Your task to perform on an android device: turn off priority inbox in the gmail app Image 0: 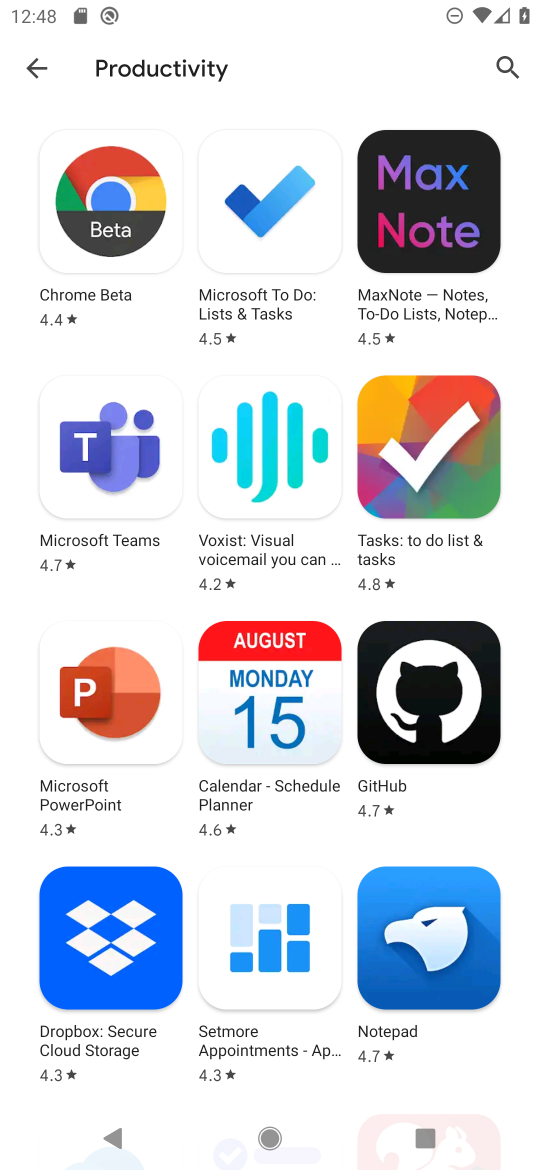
Step 0: press home button
Your task to perform on an android device: turn off priority inbox in the gmail app Image 1: 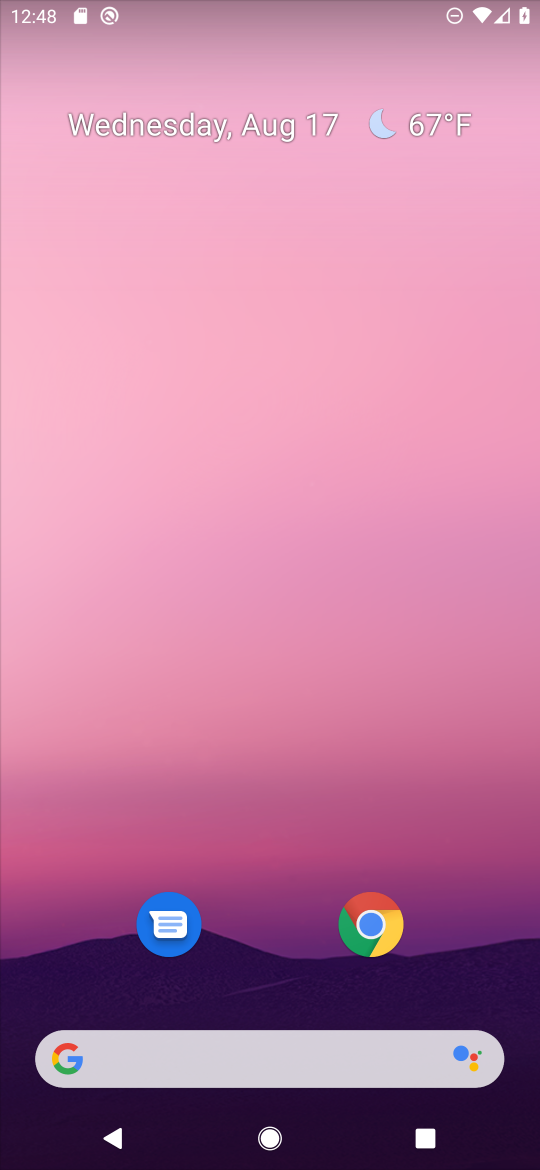
Step 1: drag from (261, 991) to (305, 77)
Your task to perform on an android device: turn off priority inbox in the gmail app Image 2: 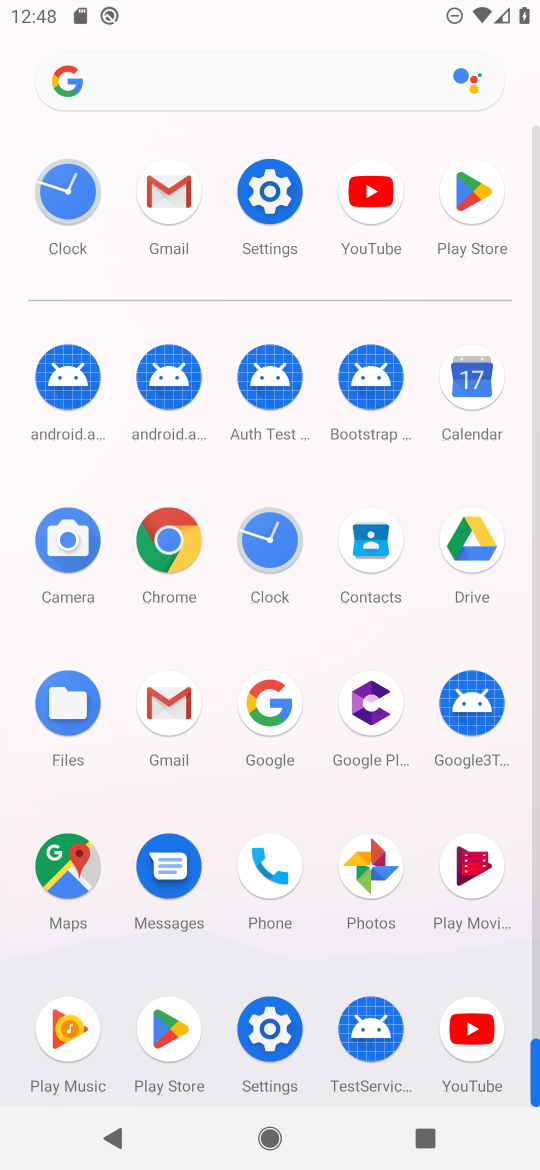
Step 2: click (198, 176)
Your task to perform on an android device: turn off priority inbox in the gmail app Image 3: 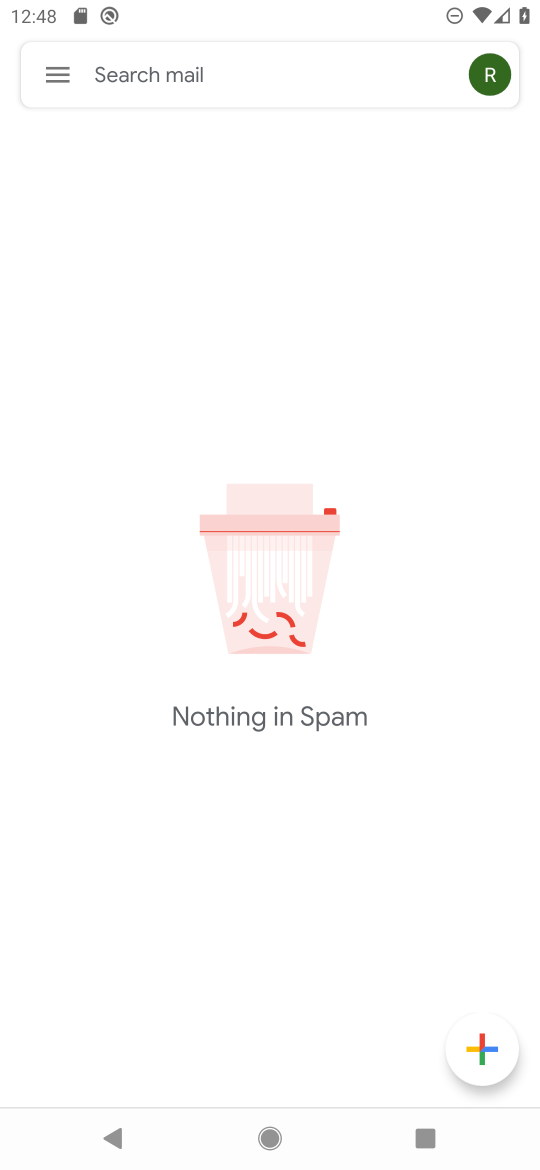
Step 3: click (54, 83)
Your task to perform on an android device: turn off priority inbox in the gmail app Image 4: 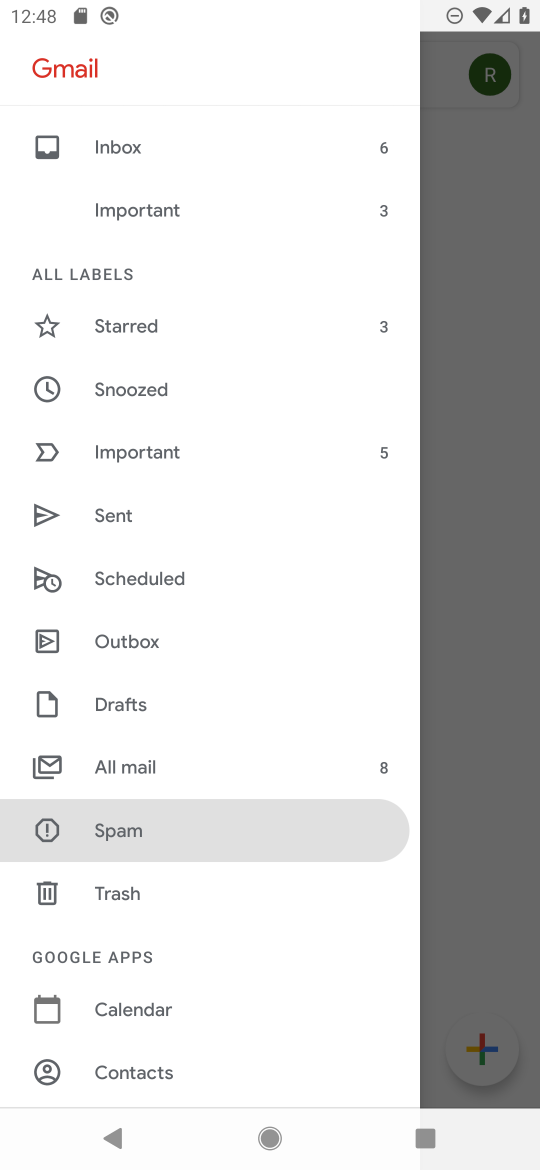
Step 4: drag from (252, 1020) to (197, 298)
Your task to perform on an android device: turn off priority inbox in the gmail app Image 5: 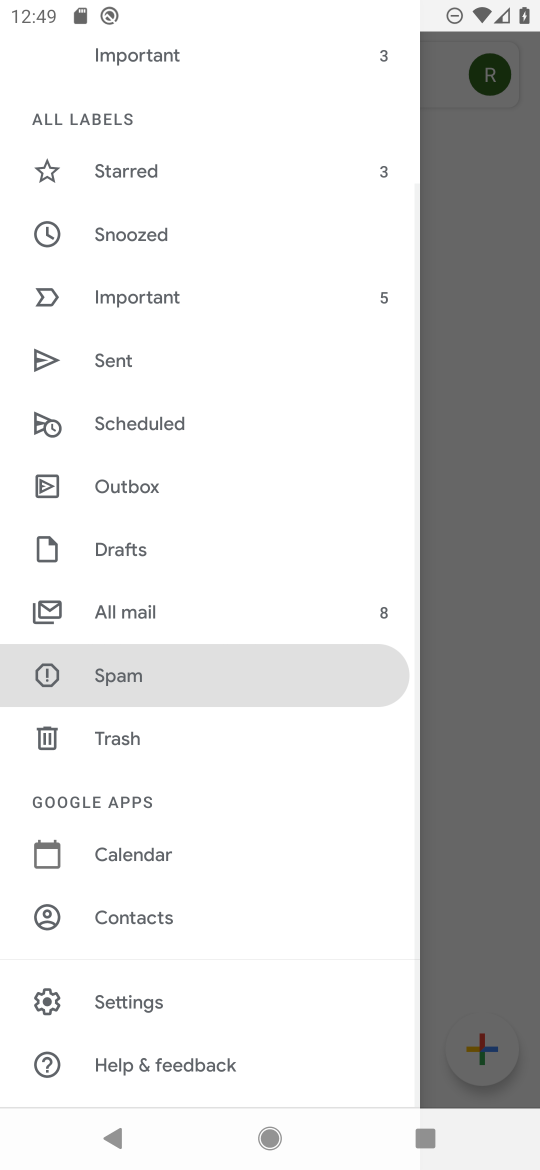
Step 5: click (171, 996)
Your task to perform on an android device: turn off priority inbox in the gmail app Image 6: 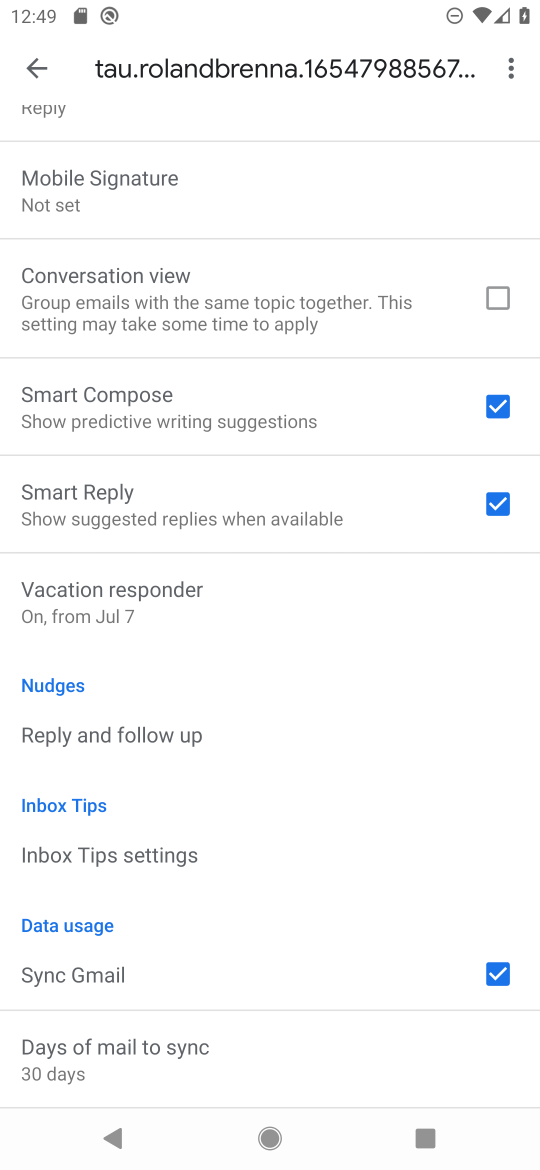
Step 6: drag from (170, 197) to (266, 881)
Your task to perform on an android device: turn off priority inbox in the gmail app Image 7: 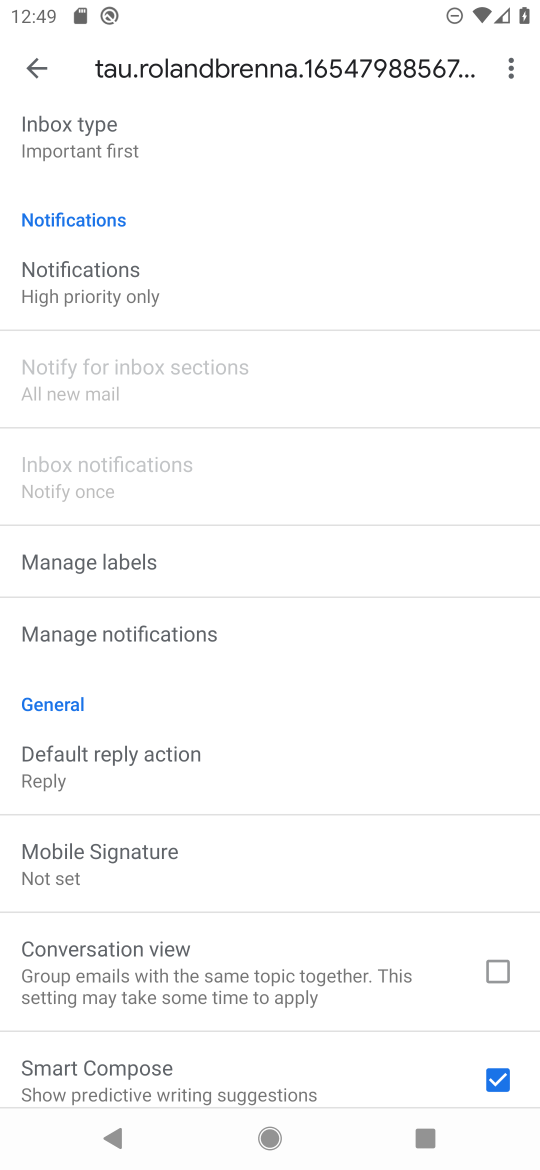
Step 7: drag from (278, 166) to (341, 862)
Your task to perform on an android device: turn off priority inbox in the gmail app Image 8: 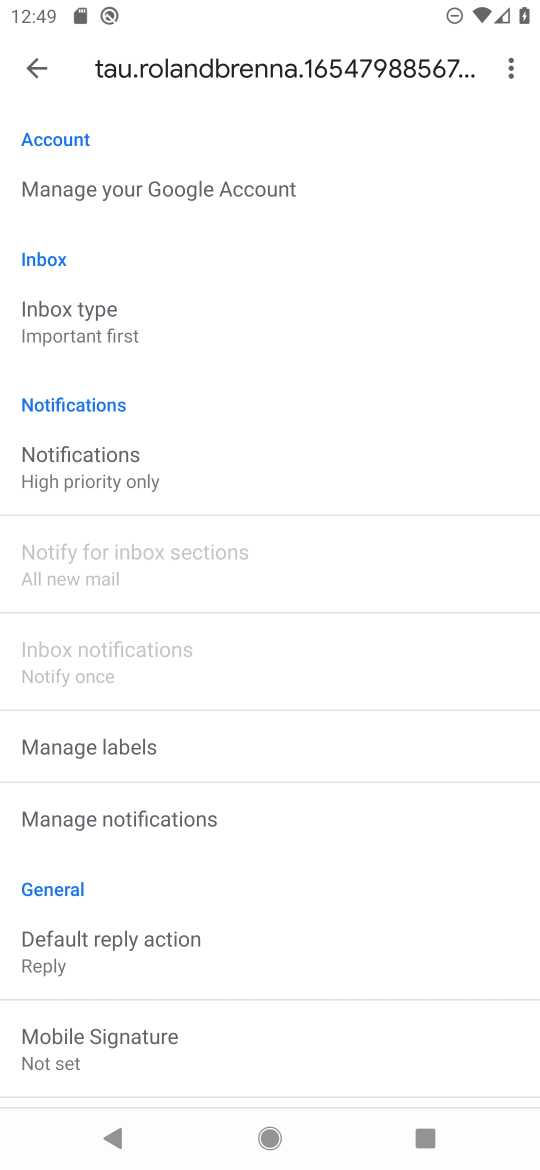
Step 8: click (211, 493)
Your task to perform on an android device: turn off priority inbox in the gmail app Image 9: 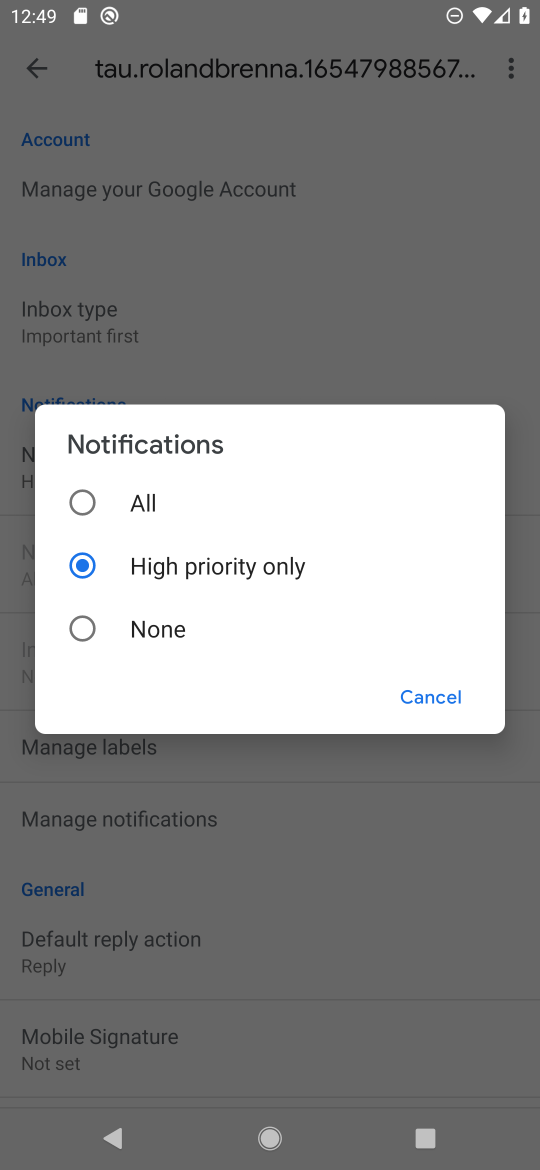
Step 9: click (173, 616)
Your task to perform on an android device: turn off priority inbox in the gmail app Image 10: 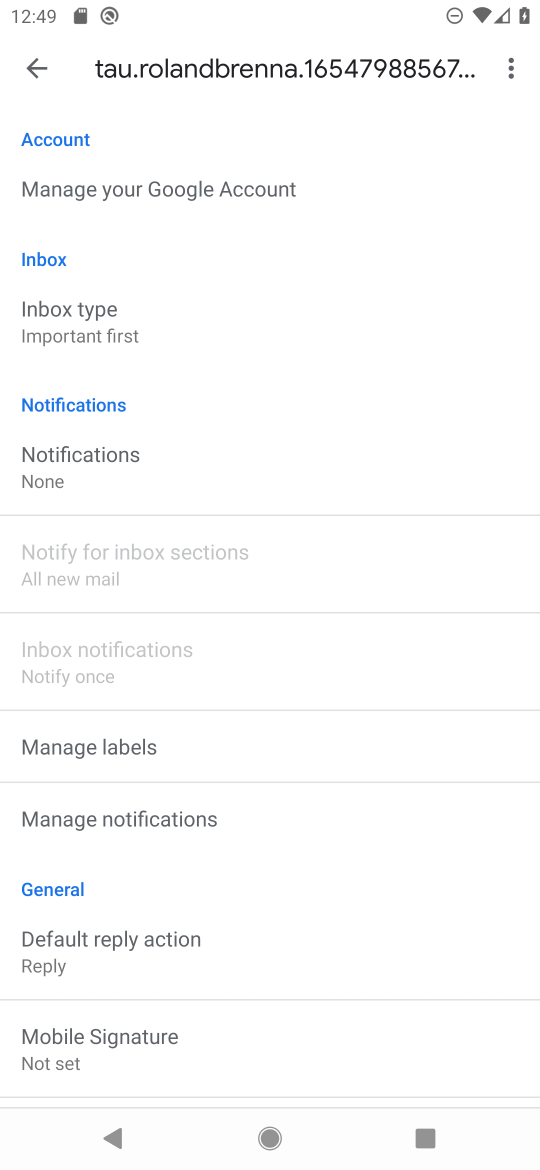
Step 10: task complete